Your task to perform on an android device: View the shopping cart on bestbuy.com. Search for razer blade on bestbuy.com, select the first entry, add it to the cart, then select checkout. Image 0: 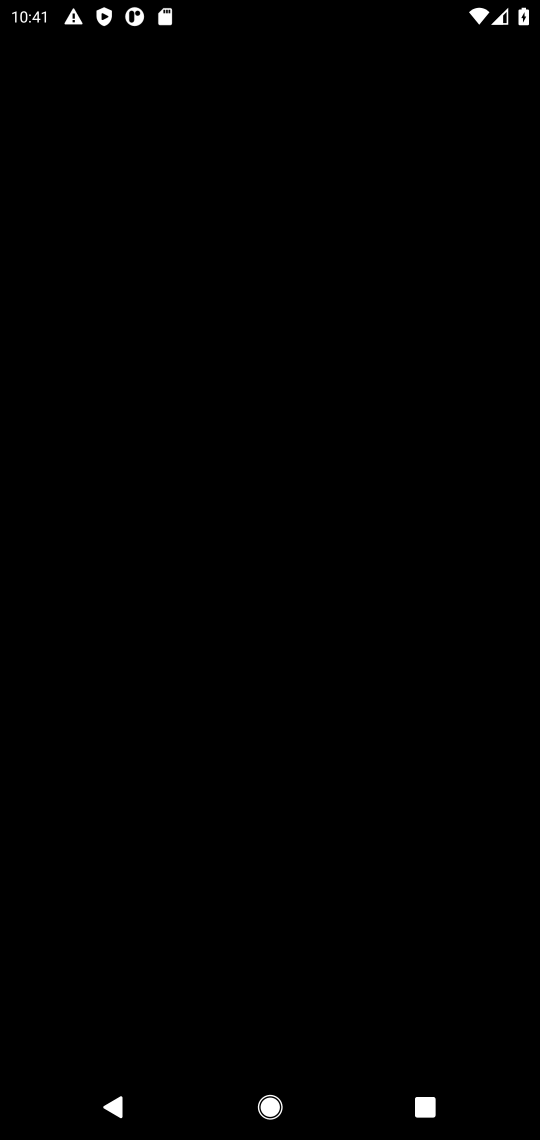
Step 0: press home button
Your task to perform on an android device: View the shopping cart on bestbuy.com. Search for razer blade on bestbuy.com, select the first entry, add it to the cart, then select checkout. Image 1: 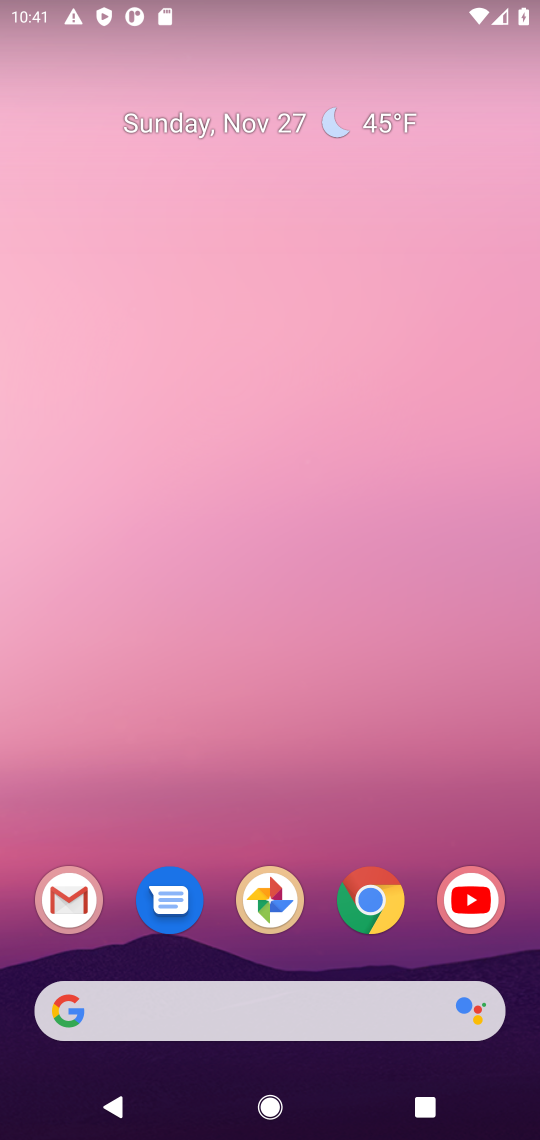
Step 1: click (367, 902)
Your task to perform on an android device: View the shopping cart on bestbuy.com. Search for razer blade on bestbuy.com, select the first entry, add it to the cart, then select checkout. Image 2: 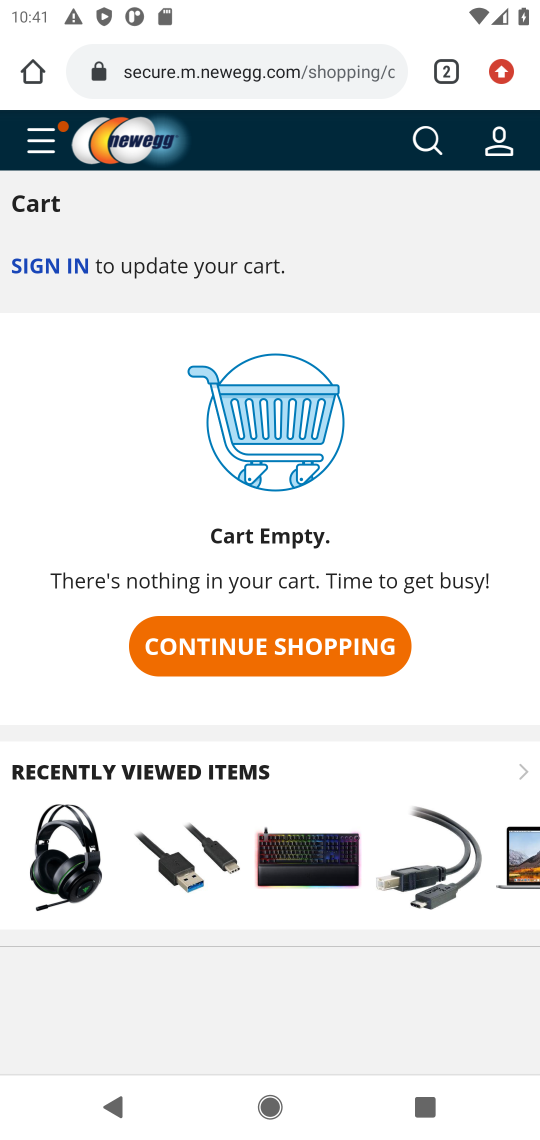
Step 2: click (206, 75)
Your task to perform on an android device: View the shopping cart on bestbuy.com. Search for razer blade on bestbuy.com, select the first entry, add it to the cart, then select checkout. Image 3: 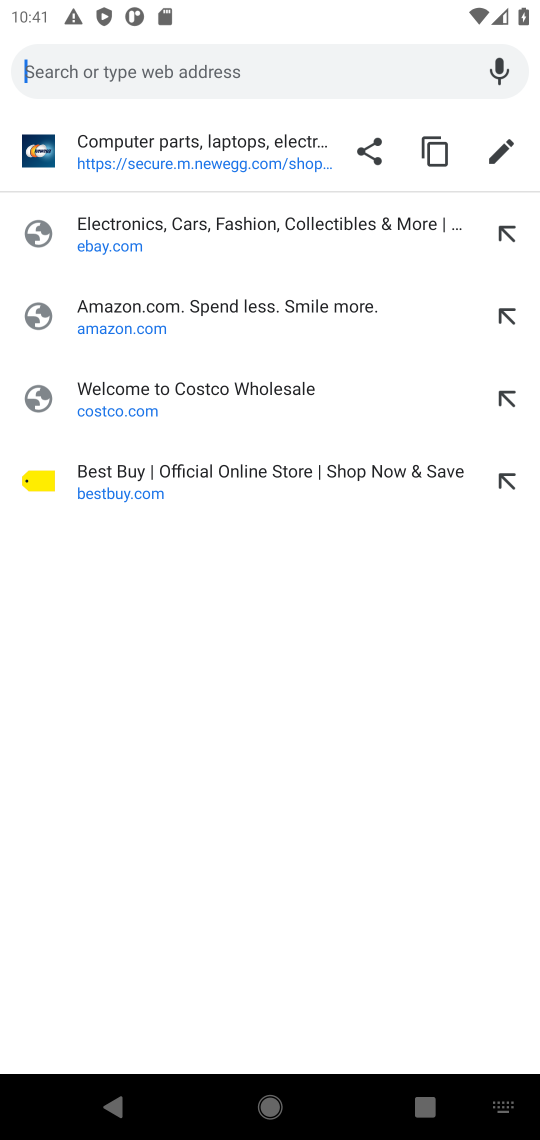
Step 3: click (116, 481)
Your task to perform on an android device: View the shopping cart on bestbuy.com. Search for razer blade on bestbuy.com, select the first entry, add it to the cart, then select checkout. Image 4: 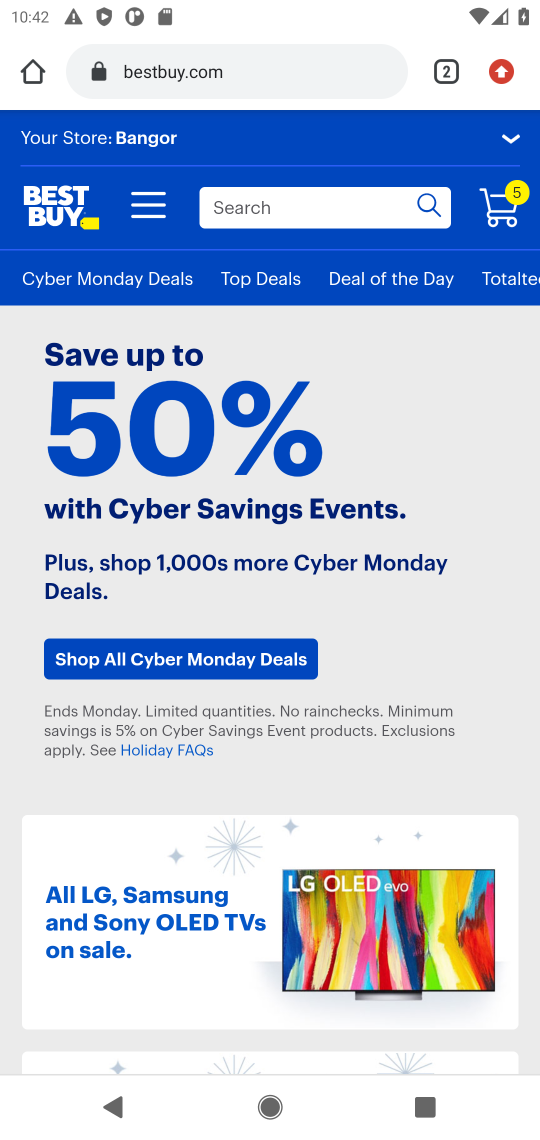
Step 4: click (494, 215)
Your task to perform on an android device: View the shopping cart on bestbuy.com. Search for razer blade on bestbuy.com, select the first entry, add it to the cart, then select checkout. Image 5: 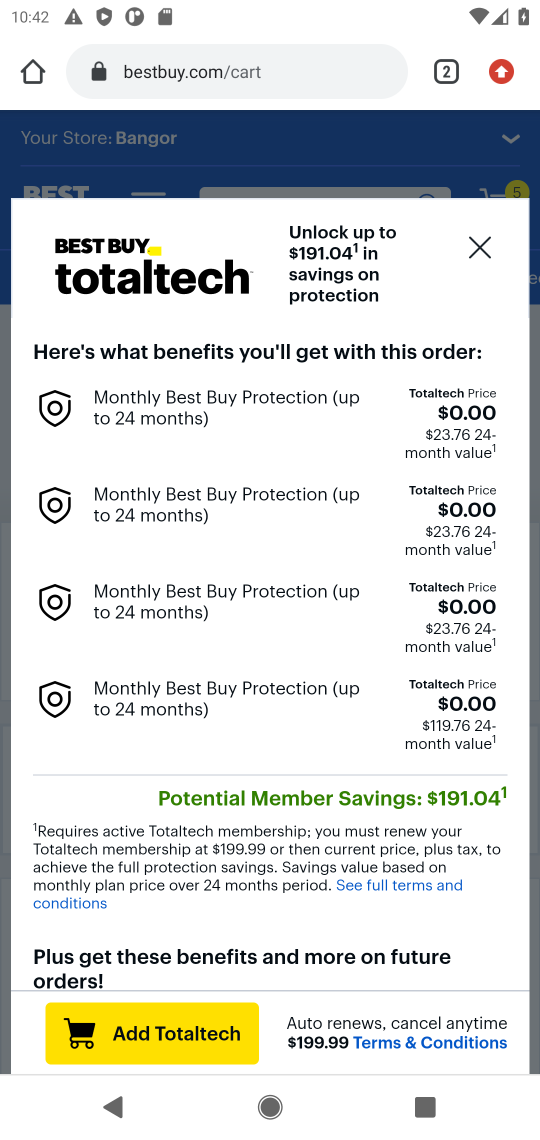
Step 5: click (480, 248)
Your task to perform on an android device: View the shopping cart on bestbuy.com. Search for razer blade on bestbuy.com, select the first entry, add it to the cart, then select checkout. Image 6: 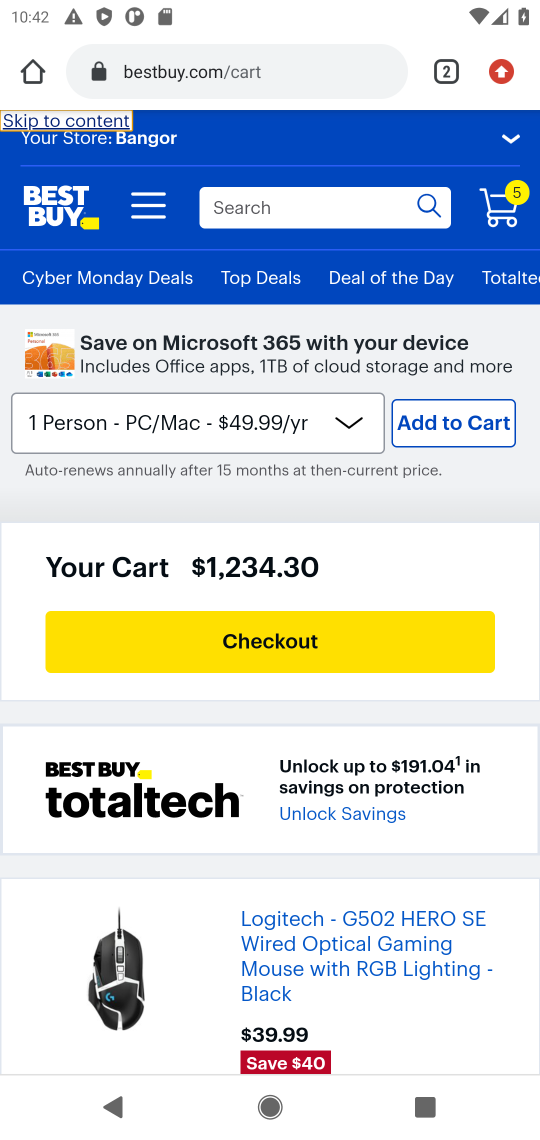
Step 6: click (231, 201)
Your task to perform on an android device: View the shopping cart on bestbuy.com. Search for razer blade on bestbuy.com, select the first entry, add it to the cart, then select checkout. Image 7: 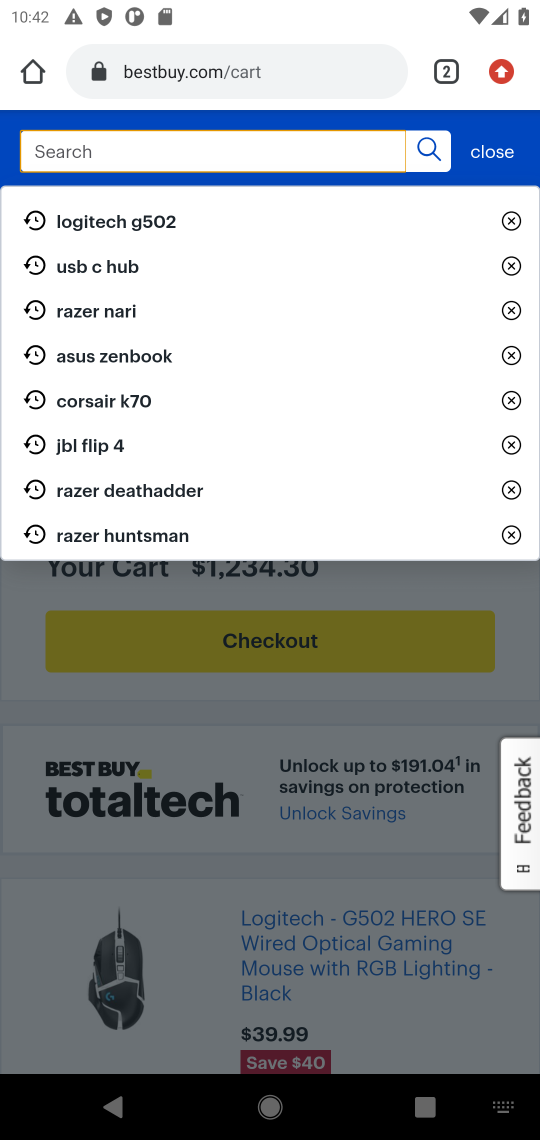
Step 7: type " razer blade"
Your task to perform on an android device: View the shopping cart on bestbuy.com. Search for razer blade on bestbuy.com, select the first entry, add it to the cart, then select checkout. Image 8: 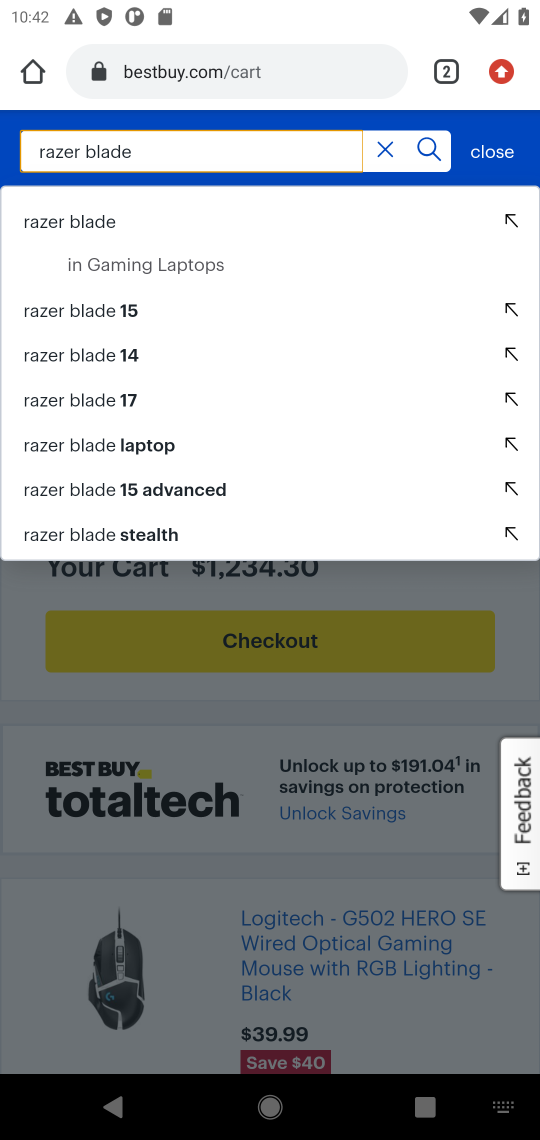
Step 8: click (60, 226)
Your task to perform on an android device: View the shopping cart on bestbuy.com. Search for razer blade on bestbuy.com, select the first entry, add it to the cart, then select checkout. Image 9: 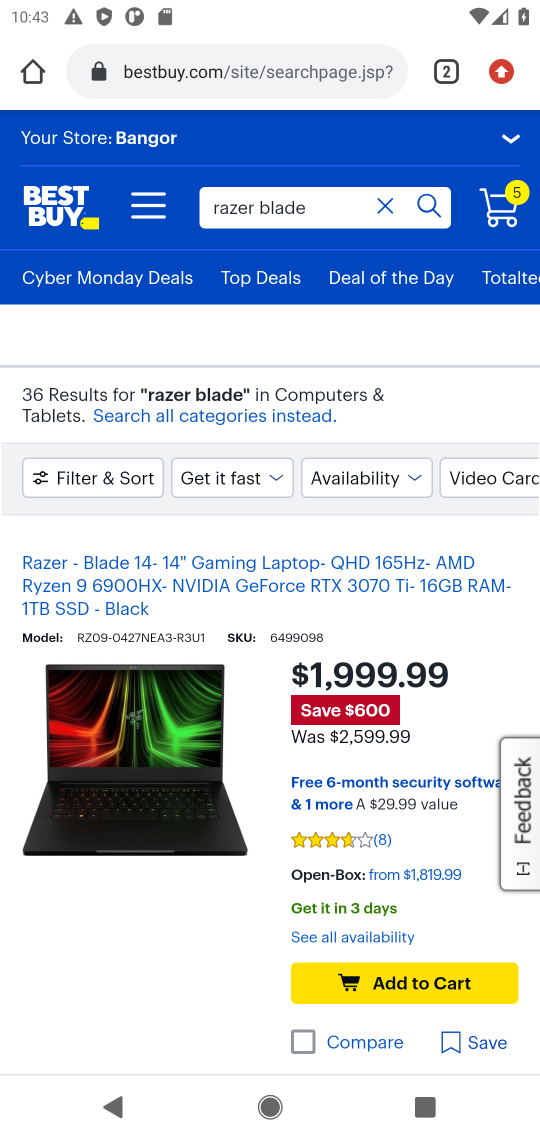
Step 9: click (391, 985)
Your task to perform on an android device: View the shopping cart on bestbuy.com. Search for razer blade on bestbuy.com, select the first entry, add it to the cart, then select checkout. Image 10: 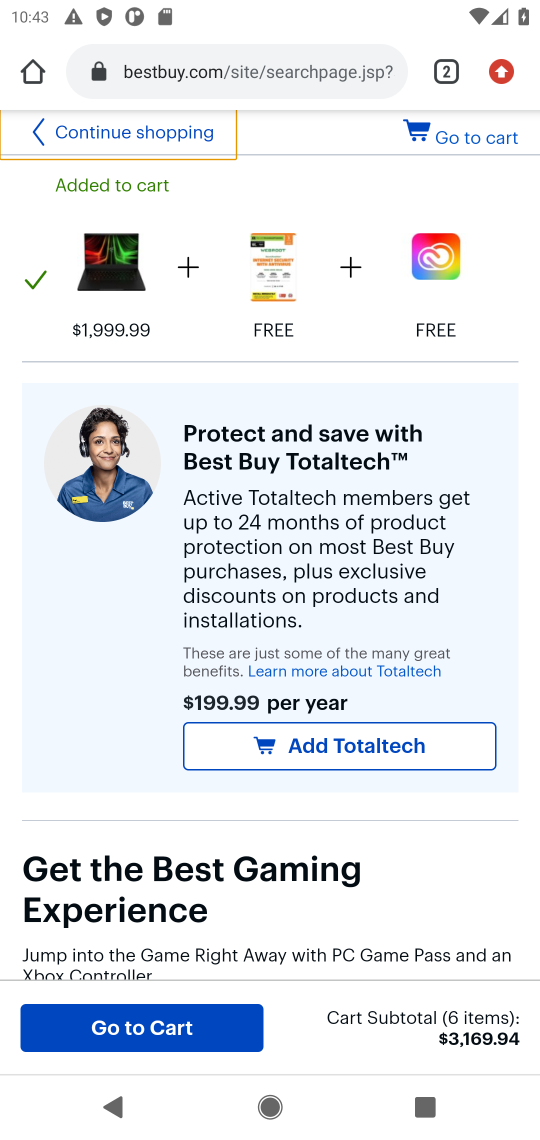
Step 10: click (473, 145)
Your task to perform on an android device: View the shopping cart on bestbuy.com. Search for razer blade on bestbuy.com, select the first entry, add it to the cart, then select checkout. Image 11: 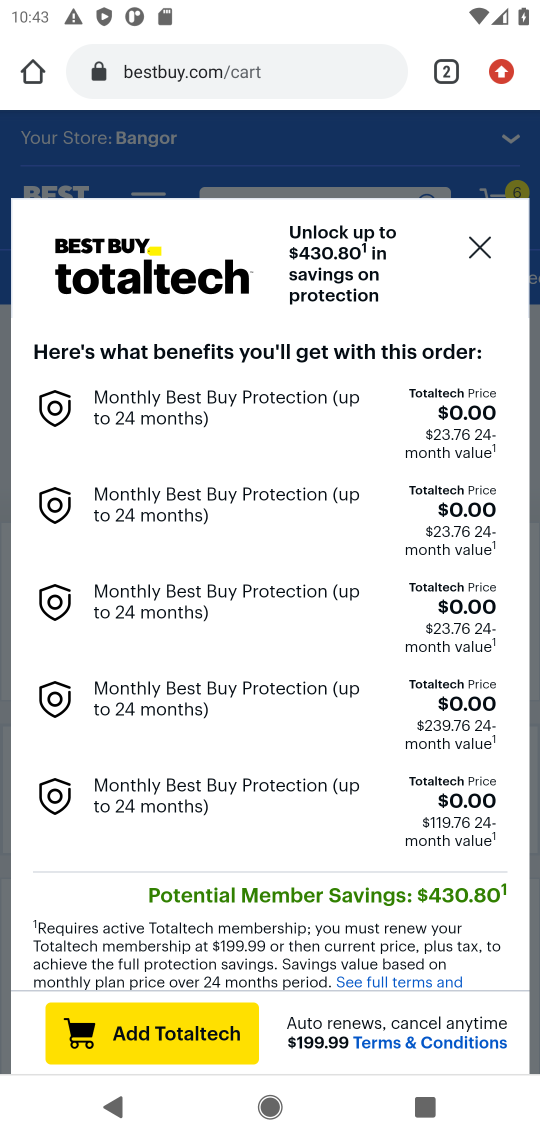
Step 11: click (475, 234)
Your task to perform on an android device: View the shopping cart on bestbuy.com. Search for razer blade on bestbuy.com, select the first entry, add it to the cart, then select checkout. Image 12: 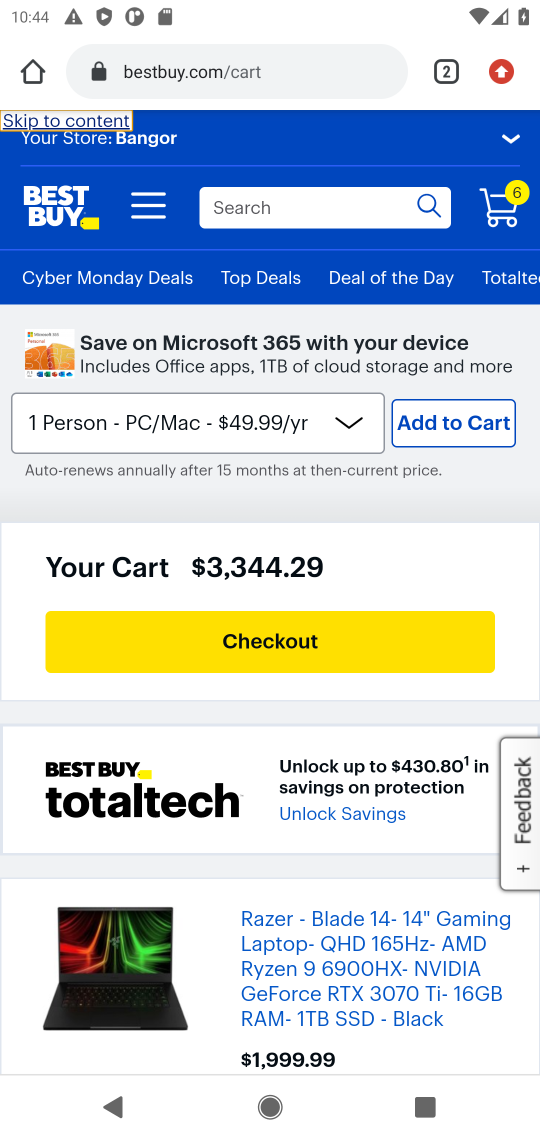
Step 12: drag from (173, 719) to (211, 580)
Your task to perform on an android device: View the shopping cart on bestbuy.com. Search for razer blade on bestbuy.com, select the first entry, add it to the cart, then select checkout. Image 13: 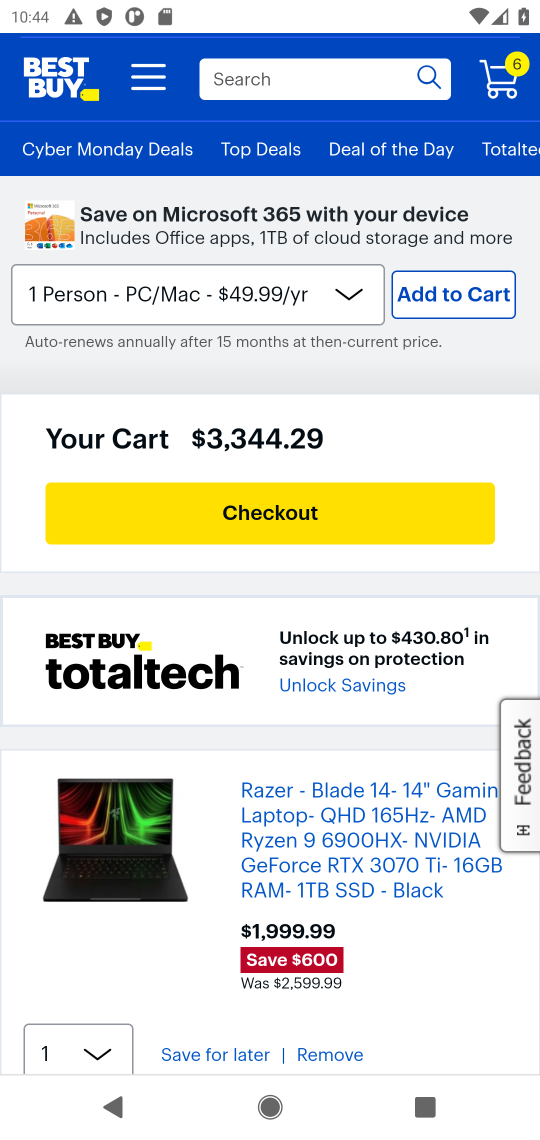
Step 13: click (313, 508)
Your task to perform on an android device: View the shopping cart on bestbuy.com. Search for razer blade on bestbuy.com, select the first entry, add it to the cart, then select checkout. Image 14: 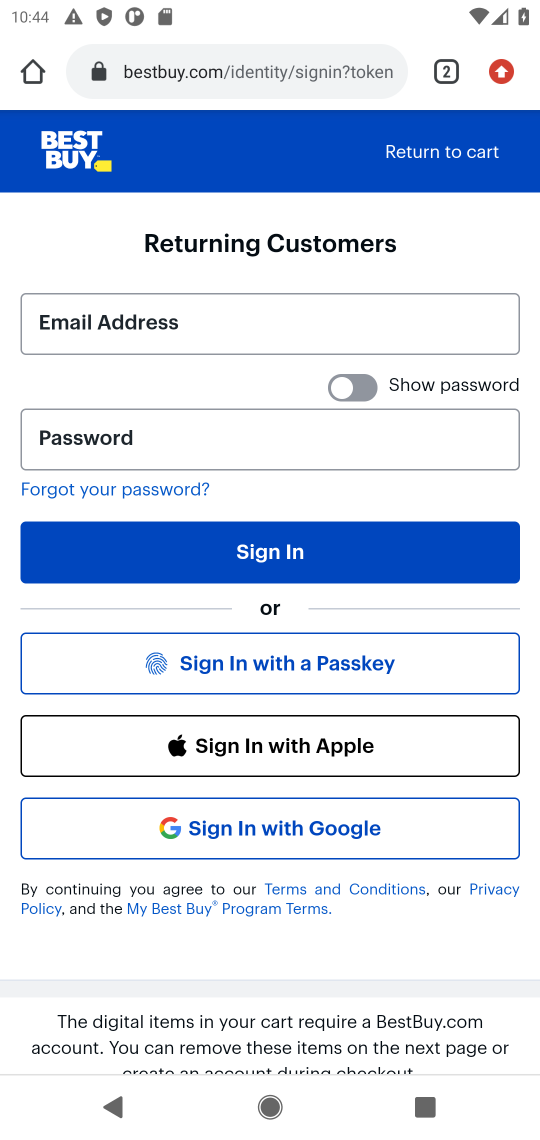
Step 14: task complete